Your task to perform on an android device: turn on sleep mode Image 0: 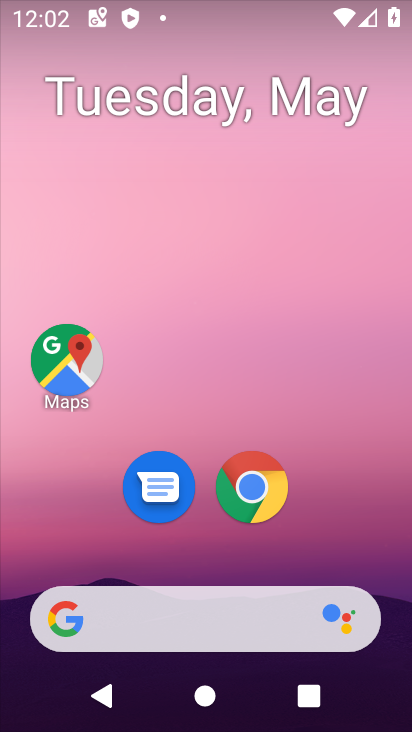
Step 0: drag from (390, 541) to (368, 215)
Your task to perform on an android device: turn on sleep mode Image 1: 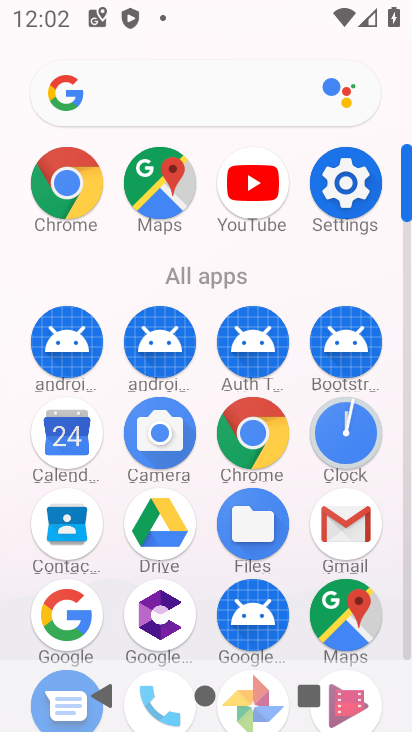
Step 1: drag from (394, 607) to (387, 458)
Your task to perform on an android device: turn on sleep mode Image 2: 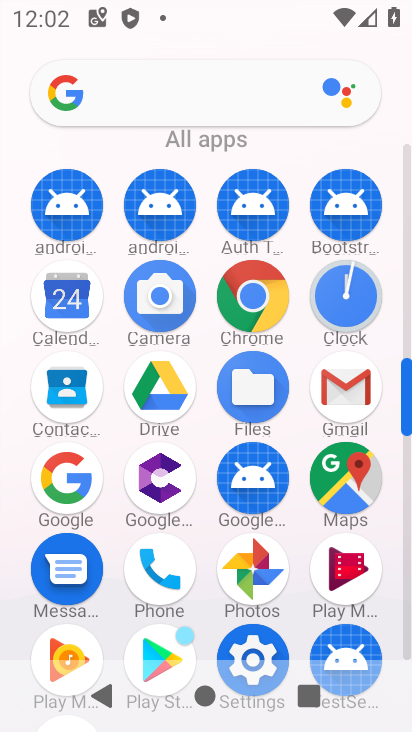
Step 2: drag from (386, 601) to (389, 395)
Your task to perform on an android device: turn on sleep mode Image 3: 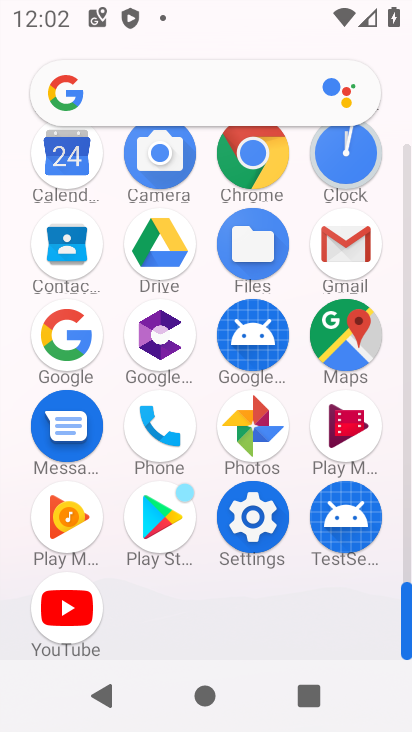
Step 3: click (235, 552)
Your task to perform on an android device: turn on sleep mode Image 4: 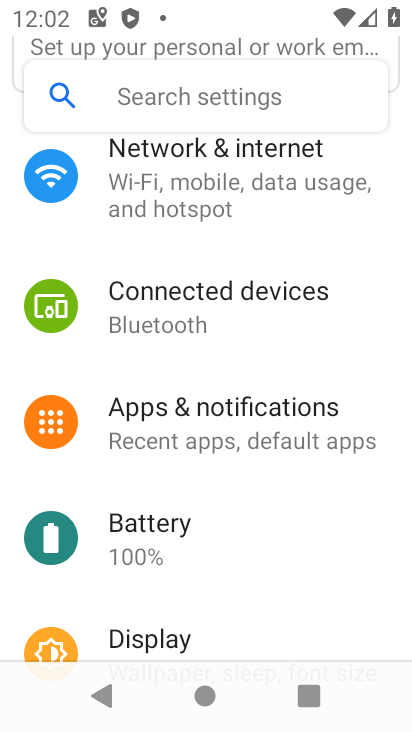
Step 4: drag from (363, 250) to (372, 426)
Your task to perform on an android device: turn on sleep mode Image 5: 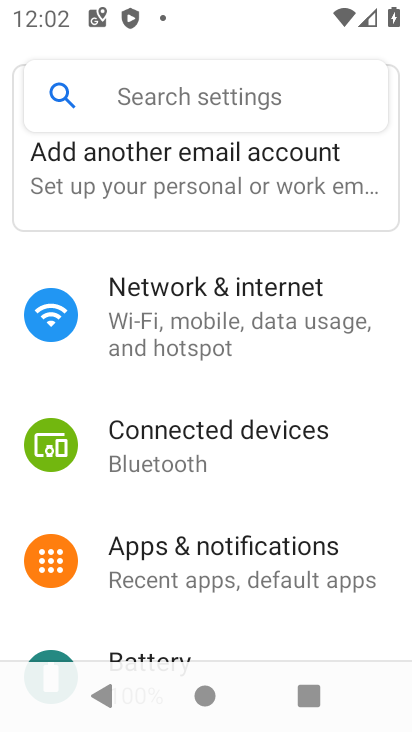
Step 5: drag from (382, 276) to (365, 494)
Your task to perform on an android device: turn on sleep mode Image 6: 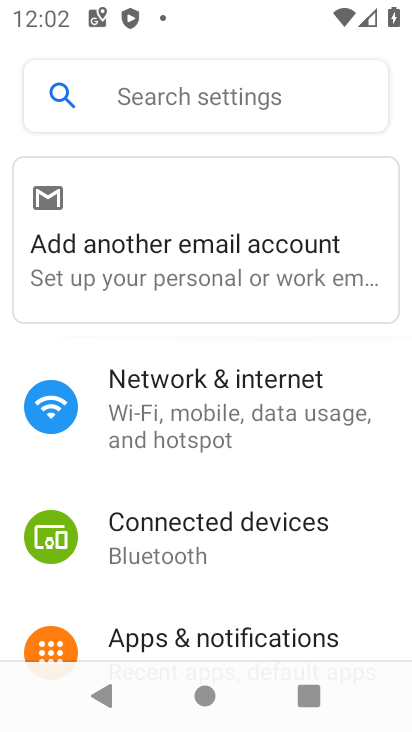
Step 6: drag from (375, 536) to (362, 404)
Your task to perform on an android device: turn on sleep mode Image 7: 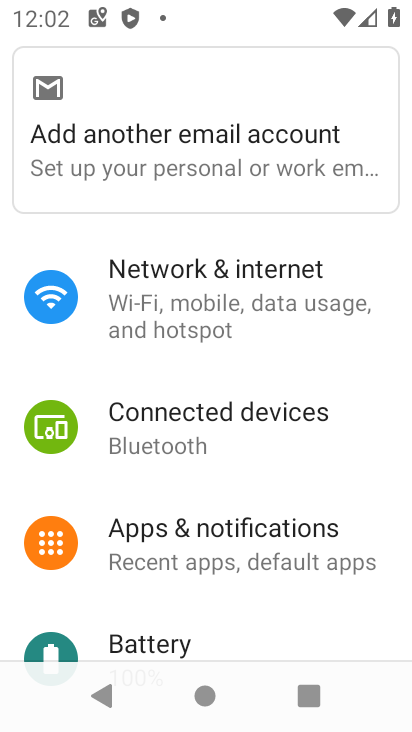
Step 7: drag from (376, 538) to (367, 404)
Your task to perform on an android device: turn on sleep mode Image 8: 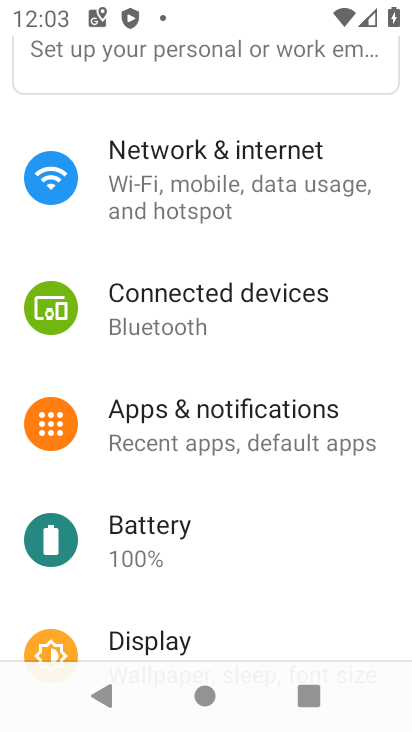
Step 8: drag from (364, 563) to (374, 435)
Your task to perform on an android device: turn on sleep mode Image 9: 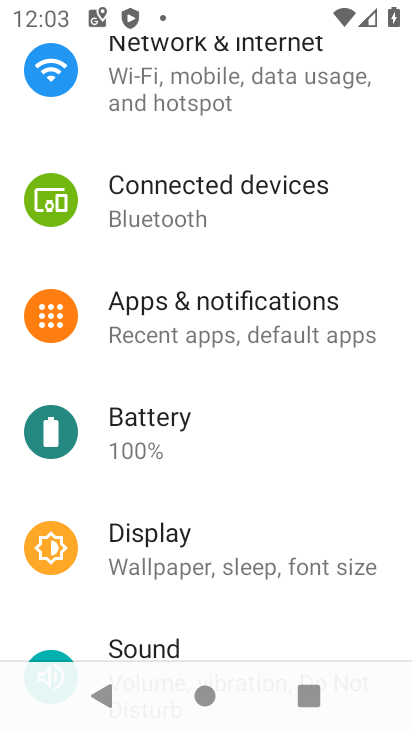
Step 9: drag from (375, 602) to (381, 447)
Your task to perform on an android device: turn on sleep mode Image 10: 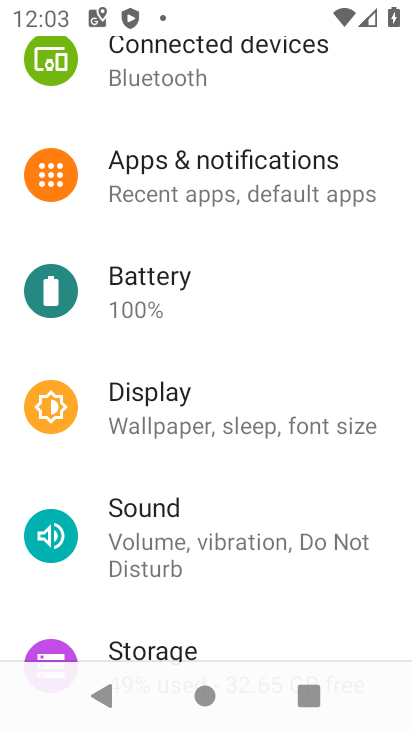
Step 10: drag from (351, 592) to (357, 492)
Your task to perform on an android device: turn on sleep mode Image 11: 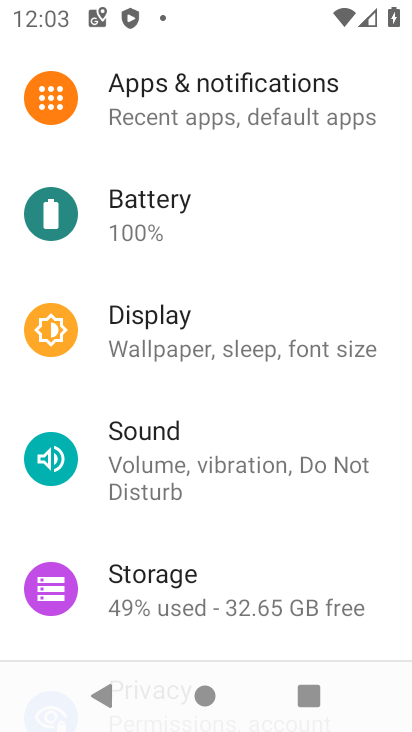
Step 11: click (270, 345)
Your task to perform on an android device: turn on sleep mode Image 12: 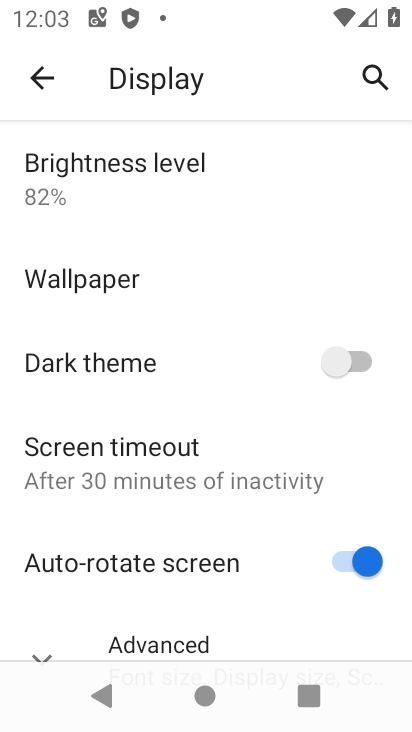
Step 12: drag from (257, 577) to (269, 447)
Your task to perform on an android device: turn on sleep mode Image 13: 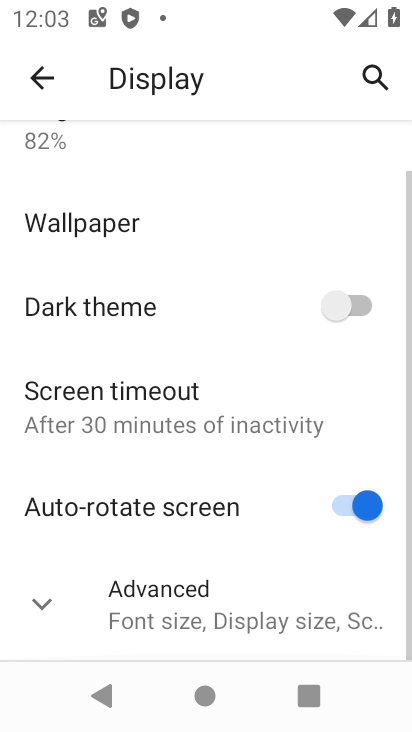
Step 13: click (249, 599)
Your task to perform on an android device: turn on sleep mode Image 14: 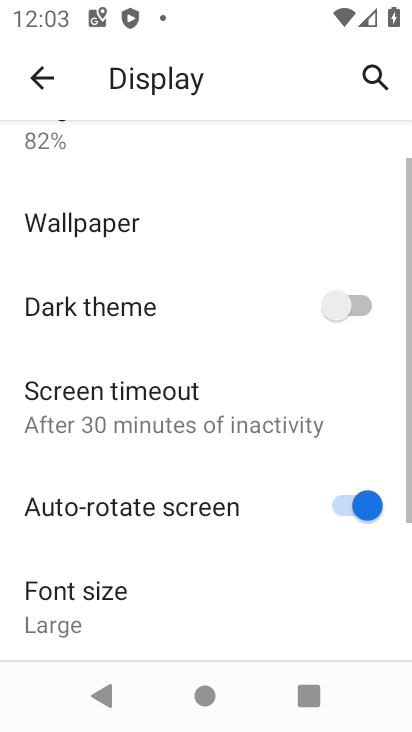
Step 14: task complete